Your task to perform on an android device: open device folders in google photos Image 0: 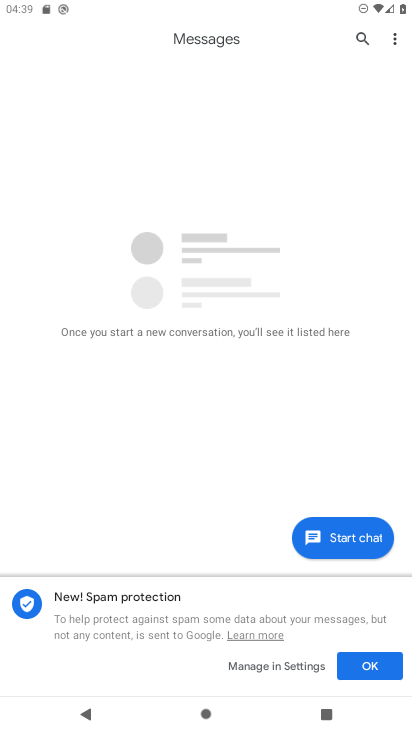
Step 0: press home button
Your task to perform on an android device: open device folders in google photos Image 1: 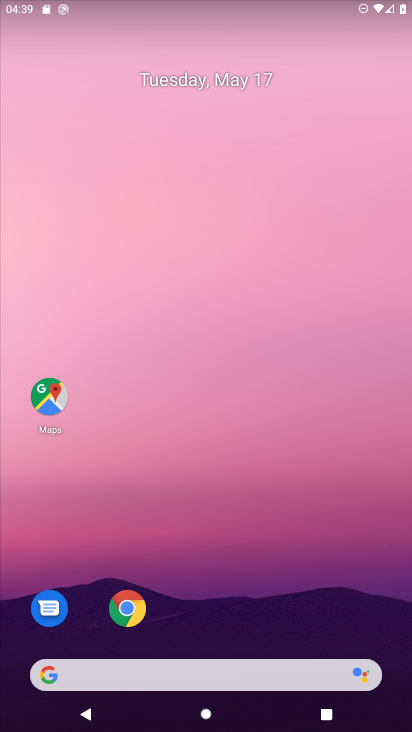
Step 1: drag from (186, 661) to (302, 89)
Your task to perform on an android device: open device folders in google photos Image 2: 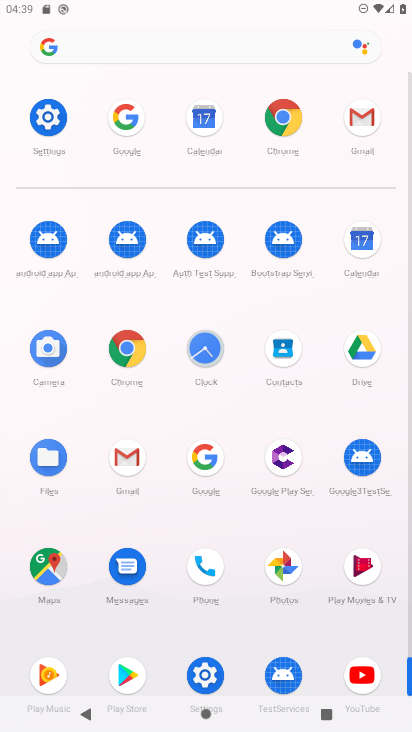
Step 2: click (276, 557)
Your task to perform on an android device: open device folders in google photos Image 3: 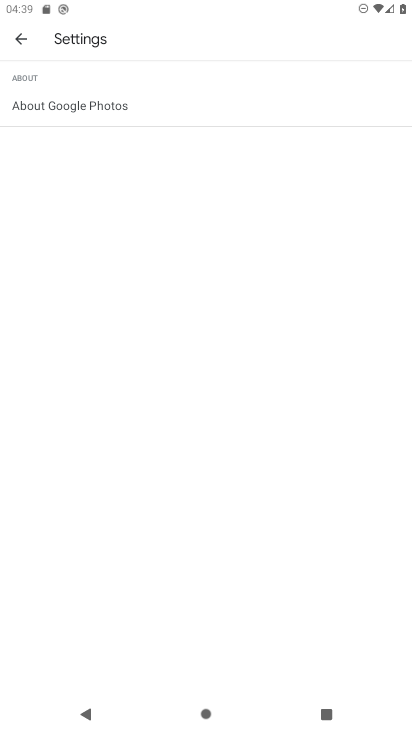
Step 3: click (18, 41)
Your task to perform on an android device: open device folders in google photos Image 4: 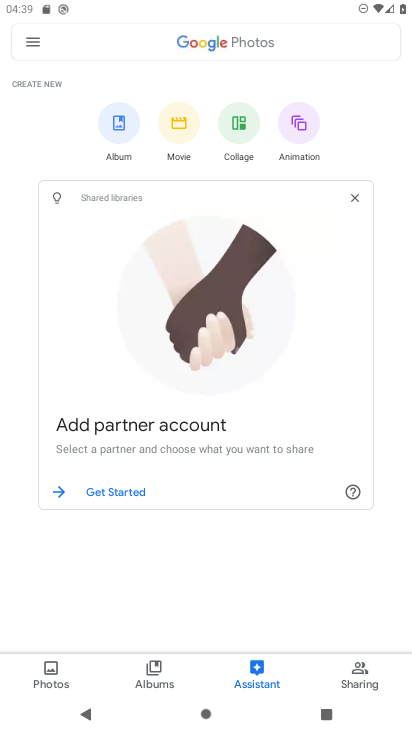
Step 4: click (39, 34)
Your task to perform on an android device: open device folders in google photos Image 5: 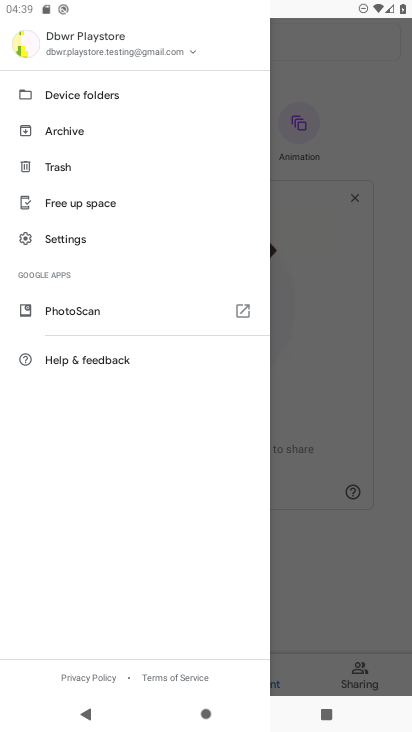
Step 5: click (58, 104)
Your task to perform on an android device: open device folders in google photos Image 6: 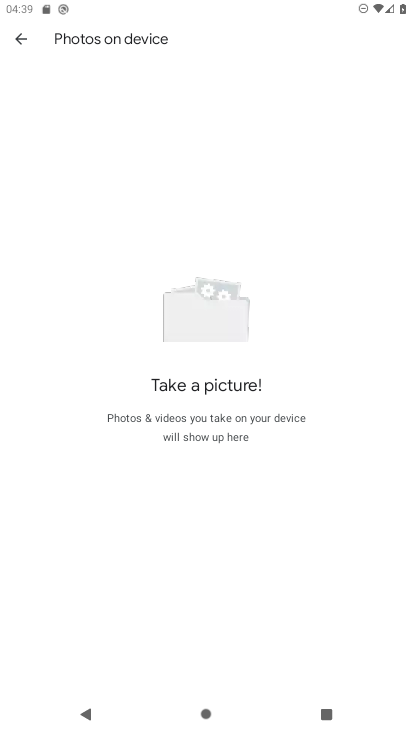
Step 6: task complete